Your task to perform on an android device: Open location settings Image 0: 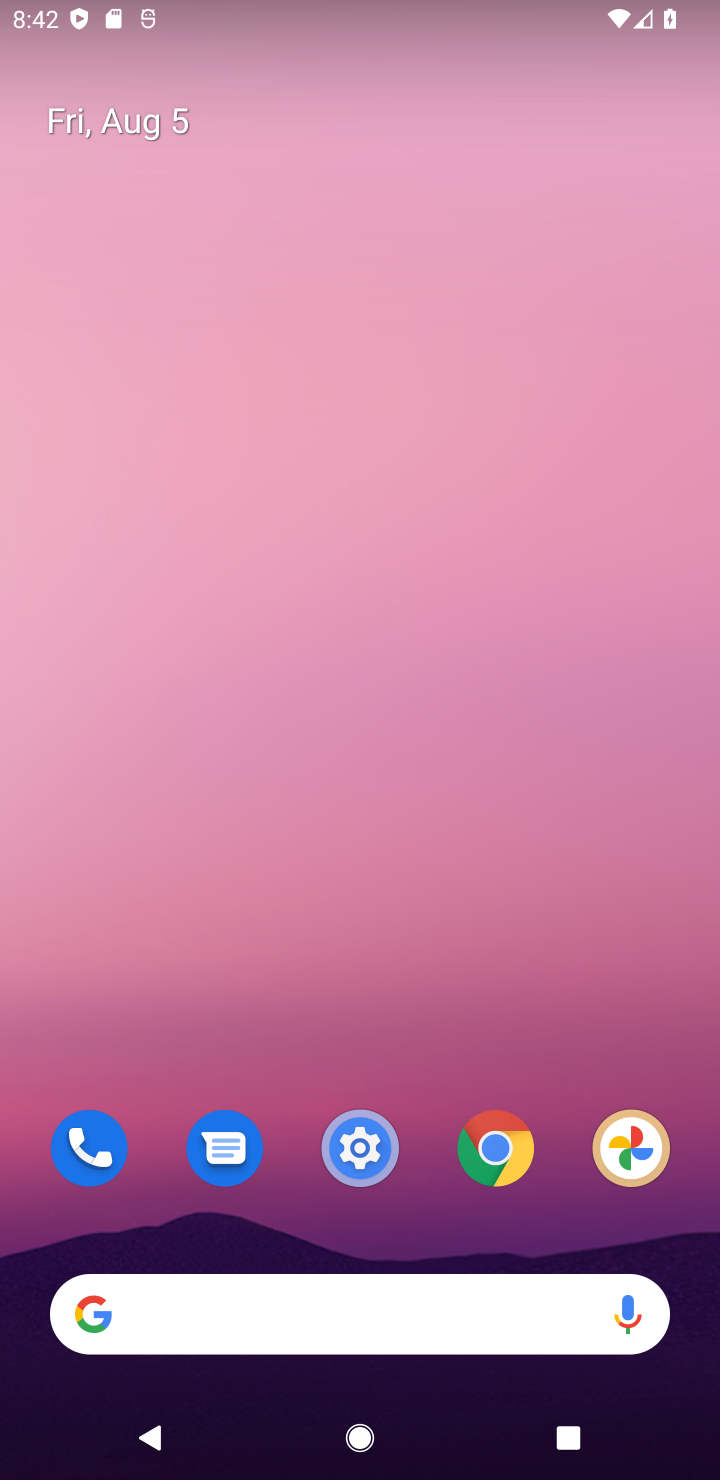
Step 0: task complete